Your task to perform on an android device: change notification settings in the gmail app Image 0: 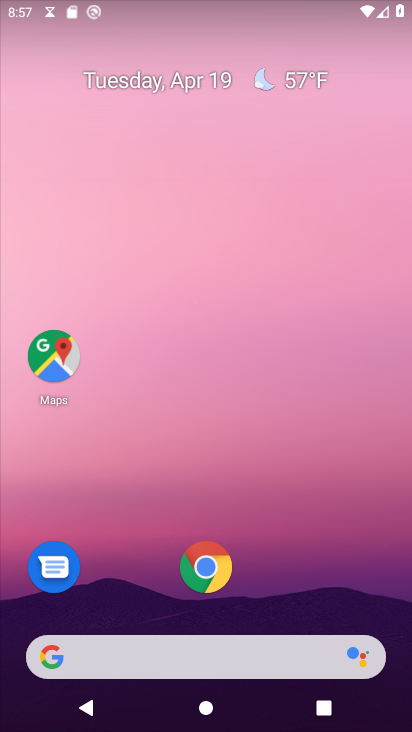
Step 0: drag from (379, 510) to (373, 23)
Your task to perform on an android device: change notification settings in the gmail app Image 1: 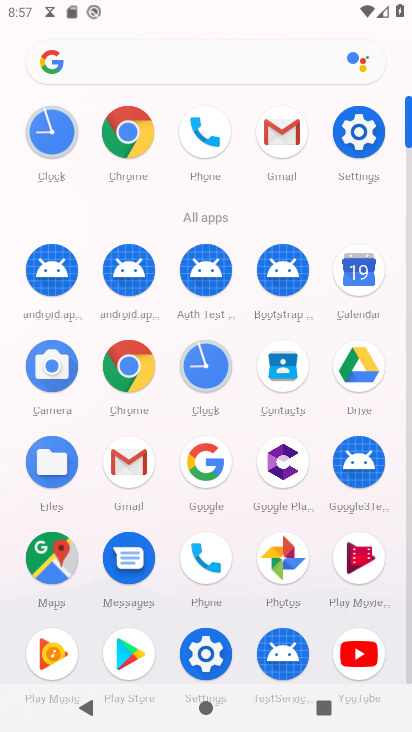
Step 1: click (273, 133)
Your task to perform on an android device: change notification settings in the gmail app Image 2: 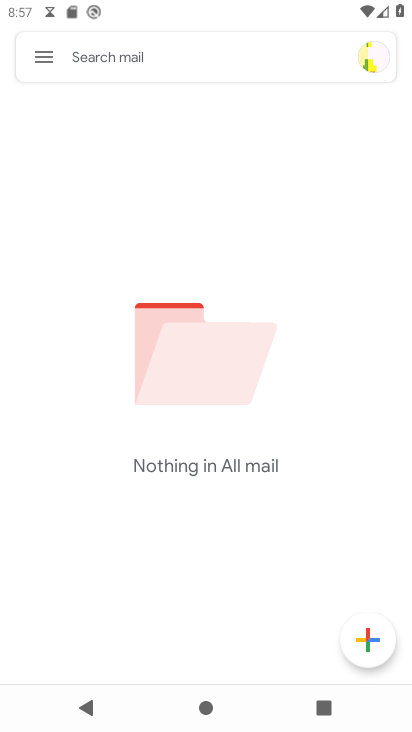
Step 2: click (53, 52)
Your task to perform on an android device: change notification settings in the gmail app Image 3: 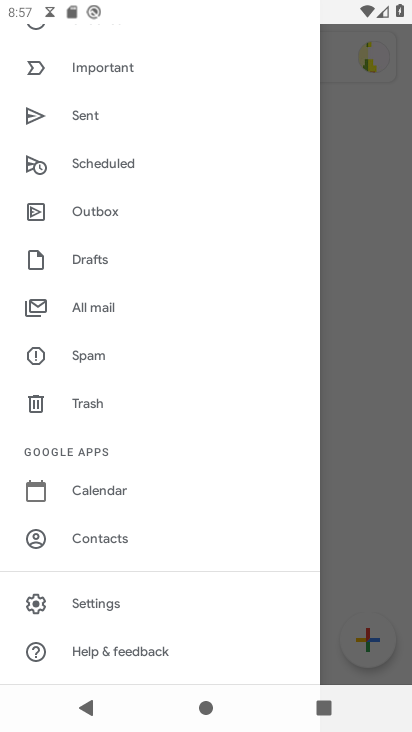
Step 3: click (112, 603)
Your task to perform on an android device: change notification settings in the gmail app Image 4: 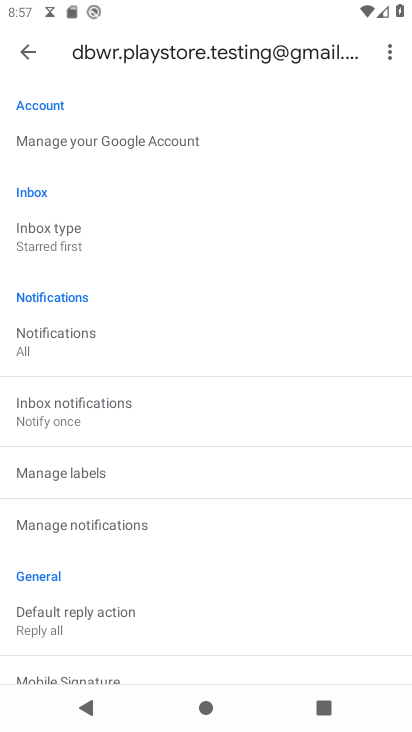
Step 4: click (90, 343)
Your task to perform on an android device: change notification settings in the gmail app Image 5: 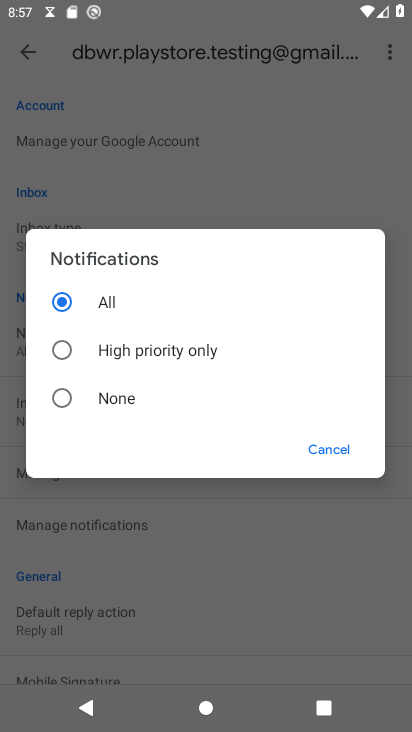
Step 5: click (66, 357)
Your task to perform on an android device: change notification settings in the gmail app Image 6: 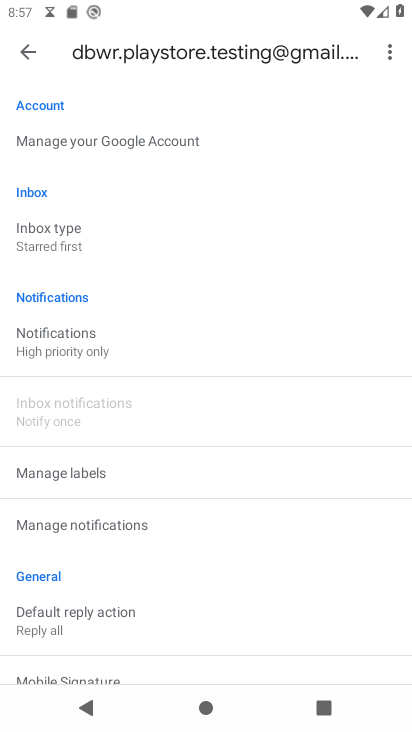
Step 6: task complete